Your task to perform on an android device: turn on data saver in the chrome app Image 0: 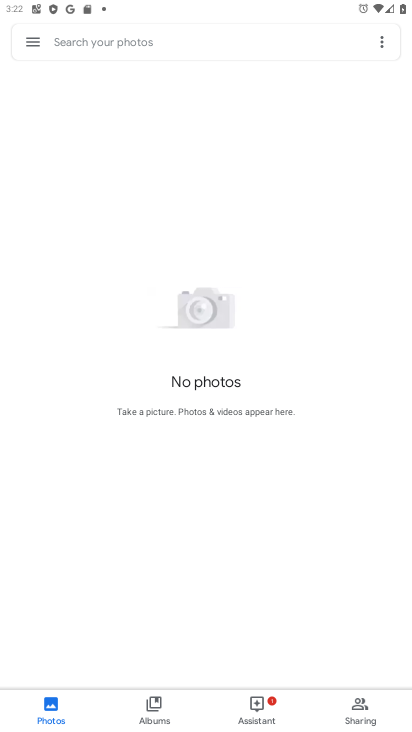
Step 0: task complete